Your task to perform on an android device: toggle javascript in the chrome app Image 0: 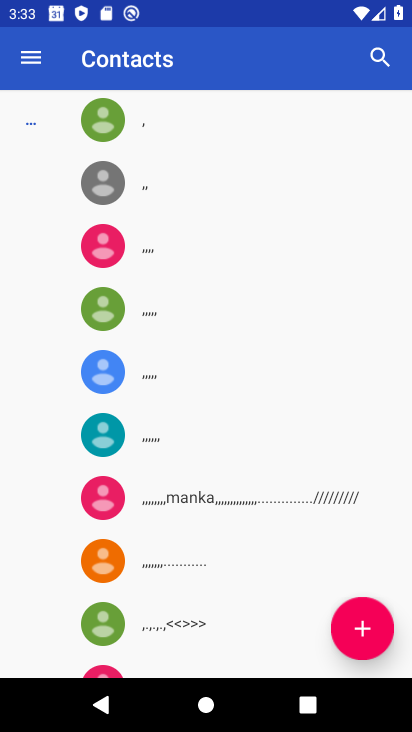
Step 0: press back button
Your task to perform on an android device: toggle javascript in the chrome app Image 1: 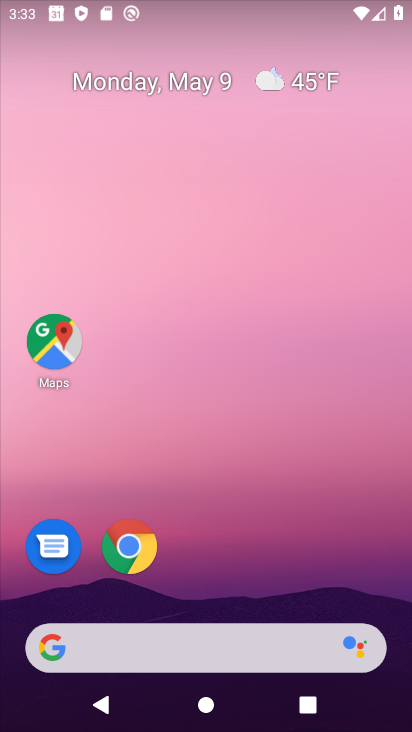
Step 1: click (149, 555)
Your task to perform on an android device: toggle javascript in the chrome app Image 2: 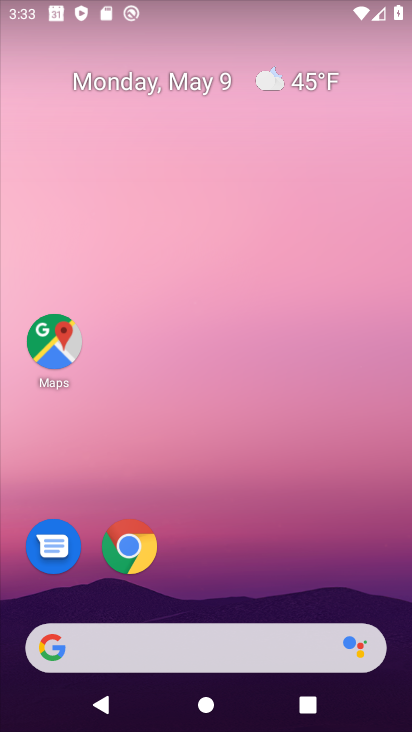
Step 2: click (149, 555)
Your task to perform on an android device: toggle javascript in the chrome app Image 3: 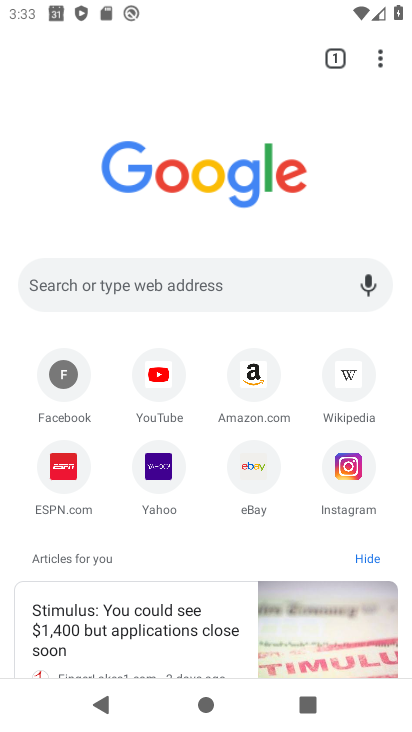
Step 3: drag from (381, 52) to (244, 477)
Your task to perform on an android device: toggle javascript in the chrome app Image 4: 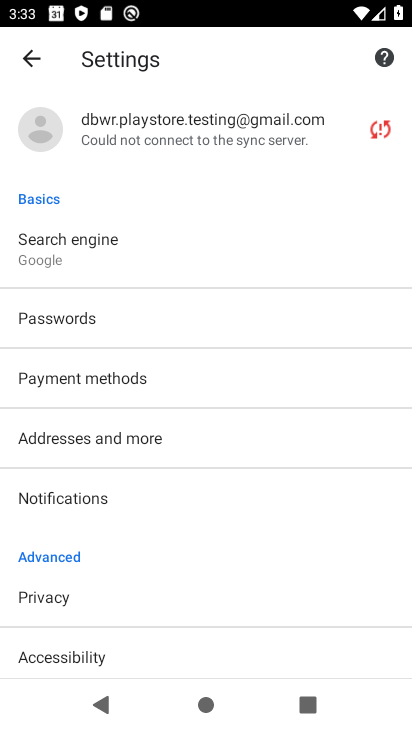
Step 4: drag from (222, 617) to (269, 443)
Your task to perform on an android device: toggle javascript in the chrome app Image 5: 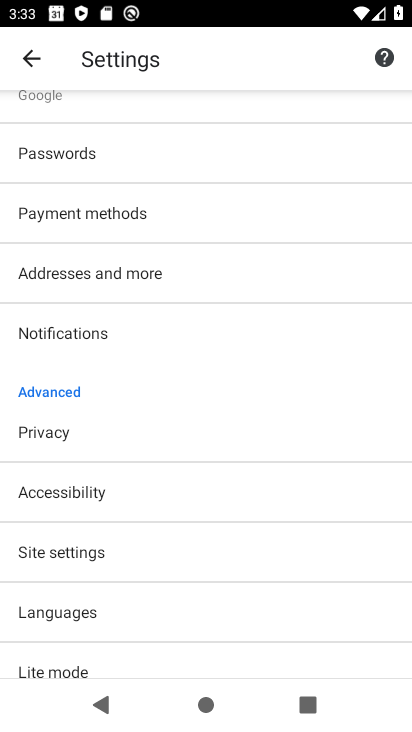
Step 5: click (234, 552)
Your task to perform on an android device: toggle javascript in the chrome app Image 6: 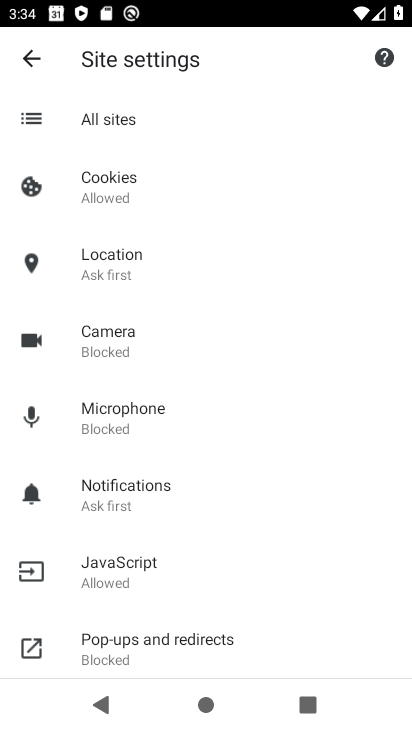
Step 6: click (241, 559)
Your task to perform on an android device: toggle javascript in the chrome app Image 7: 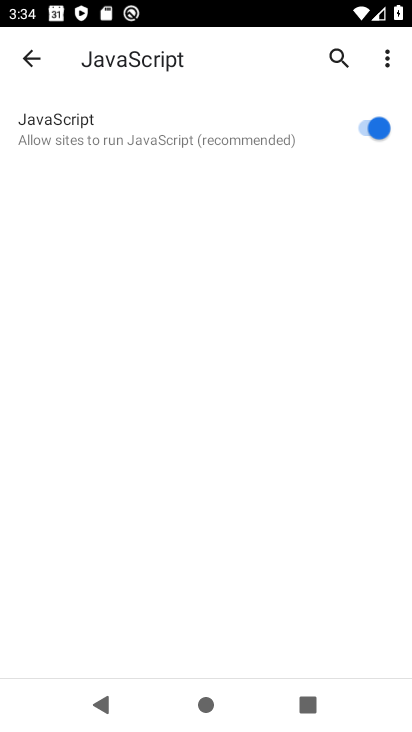
Step 7: click (370, 121)
Your task to perform on an android device: toggle javascript in the chrome app Image 8: 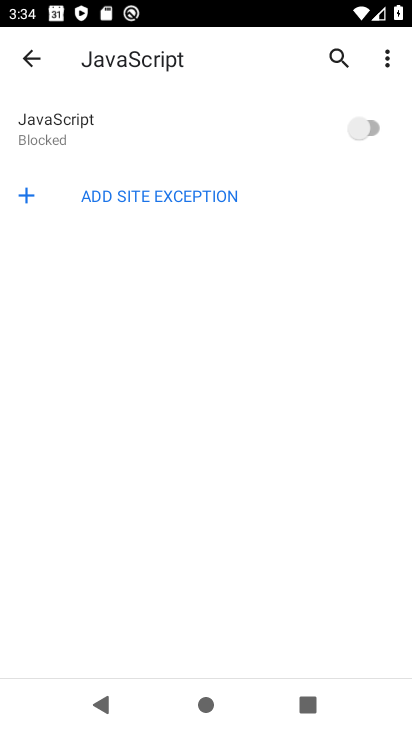
Step 8: task complete